Your task to perform on an android device: Open Maps and search for coffee Image 0: 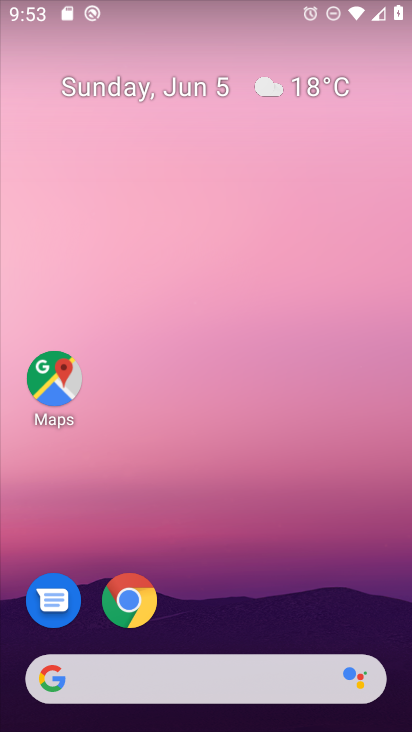
Step 0: click (49, 379)
Your task to perform on an android device: Open Maps and search for coffee Image 1: 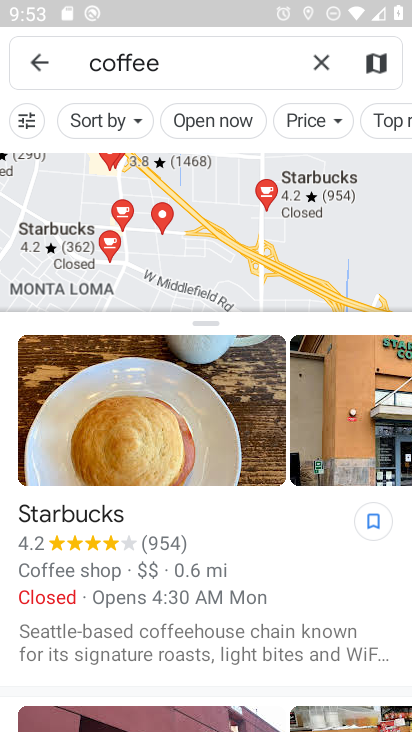
Step 1: task complete